Your task to perform on an android device: turn on sleep mode Image 0: 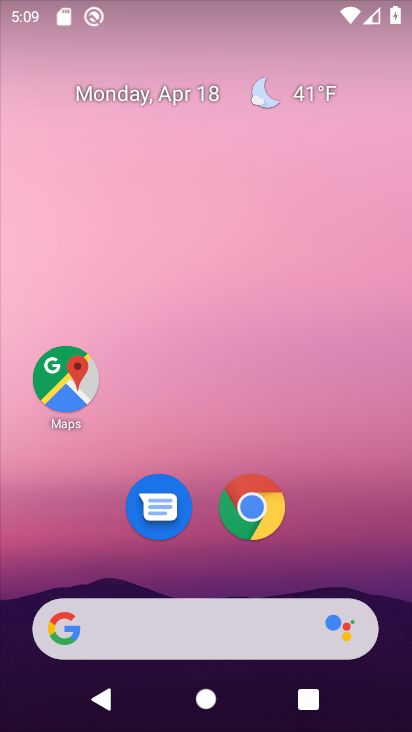
Step 0: drag from (328, 454) to (321, 79)
Your task to perform on an android device: turn on sleep mode Image 1: 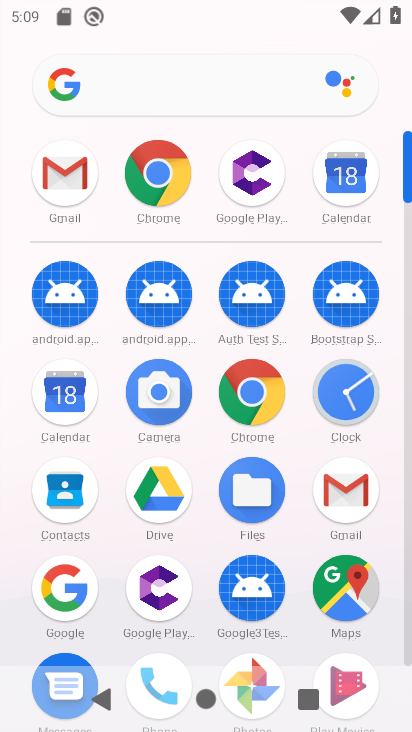
Step 1: drag from (192, 639) to (186, 178)
Your task to perform on an android device: turn on sleep mode Image 2: 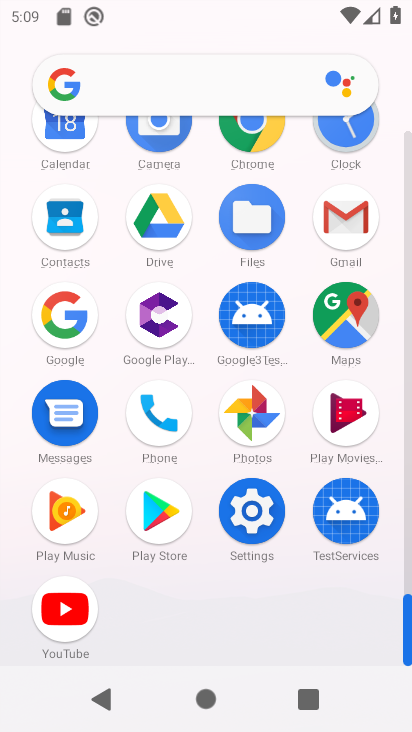
Step 2: click (262, 524)
Your task to perform on an android device: turn on sleep mode Image 3: 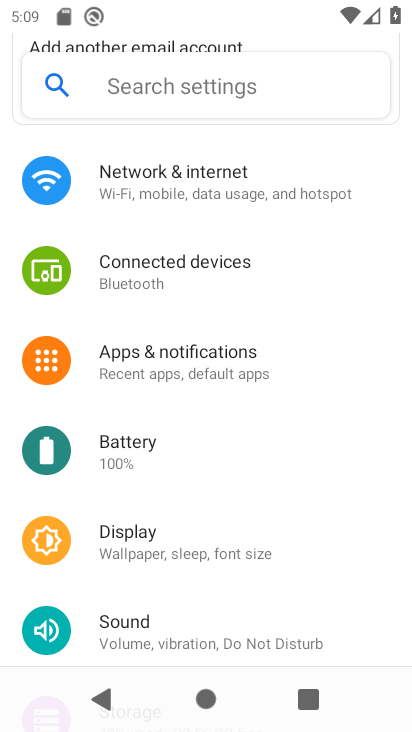
Step 3: drag from (177, 330) to (194, 581)
Your task to perform on an android device: turn on sleep mode Image 4: 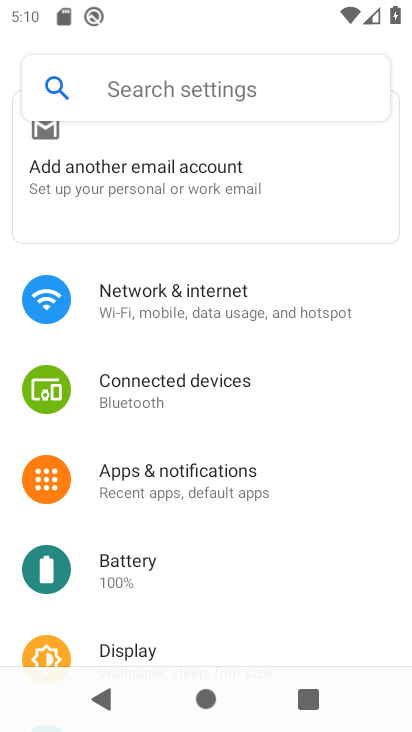
Step 4: drag from (212, 601) to (207, 254)
Your task to perform on an android device: turn on sleep mode Image 5: 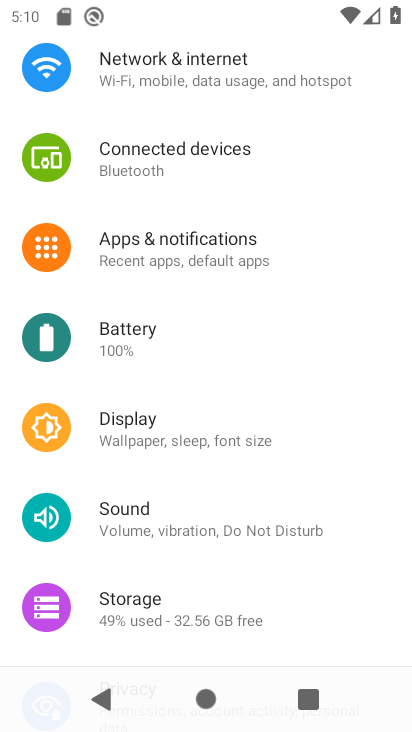
Step 5: click (134, 440)
Your task to perform on an android device: turn on sleep mode Image 6: 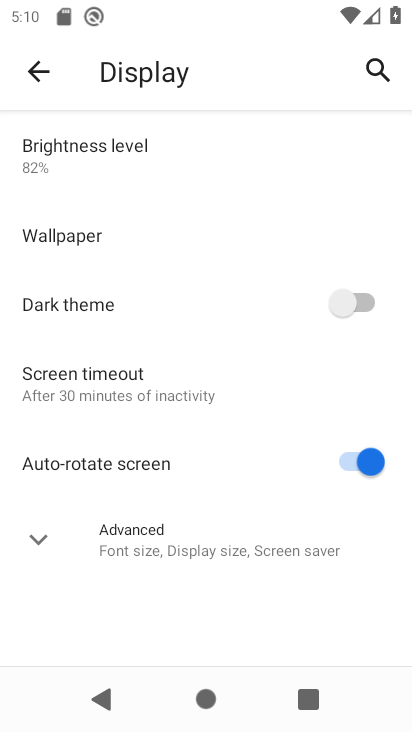
Step 6: task complete